Your task to perform on an android device: turn on sleep mode Image 0: 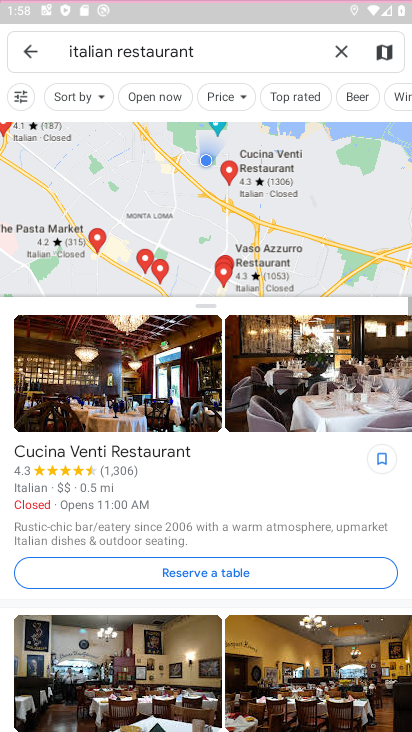
Step 0: drag from (231, 560) to (194, 192)
Your task to perform on an android device: turn on sleep mode Image 1: 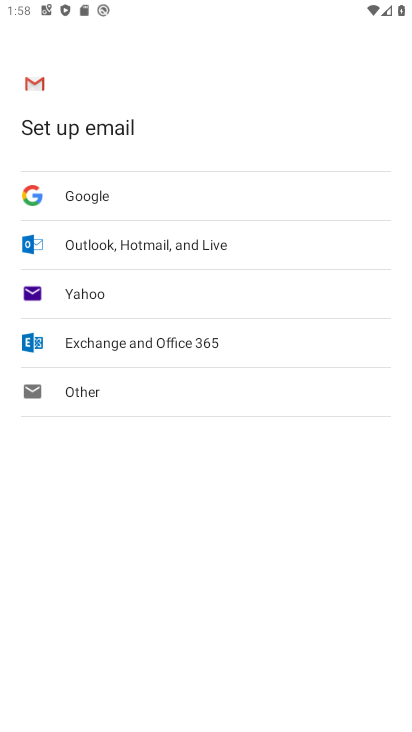
Step 1: press home button
Your task to perform on an android device: turn on sleep mode Image 2: 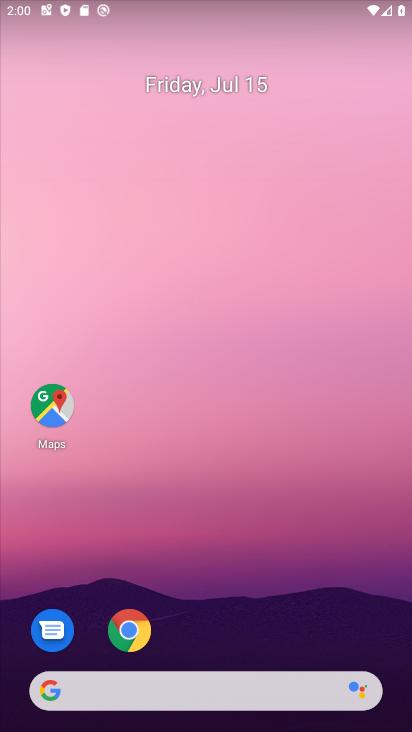
Step 2: drag from (216, 582) to (179, 212)
Your task to perform on an android device: turn on sleep mode Image 3: 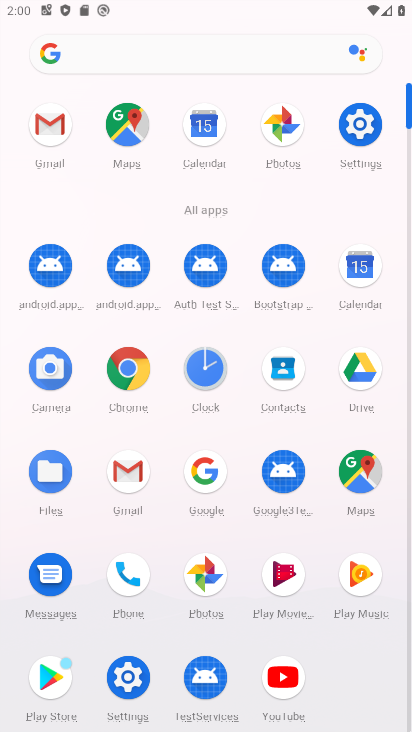
Step 3: click (357, 133)
Your task to perform on an android device: turn on sleep mode Image 4: 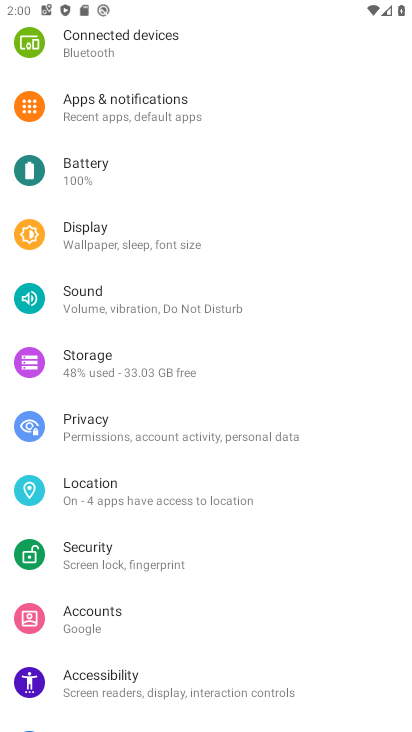
Step 4: click (87, 238)
Your task to perform on an android device: turn on sleep mode Image 5: 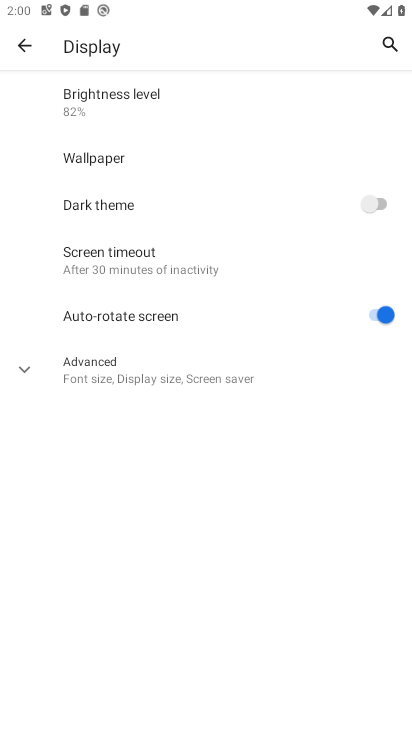
Step 5: task complete